Your task to perform on an android device: Go to location settings Image 0: 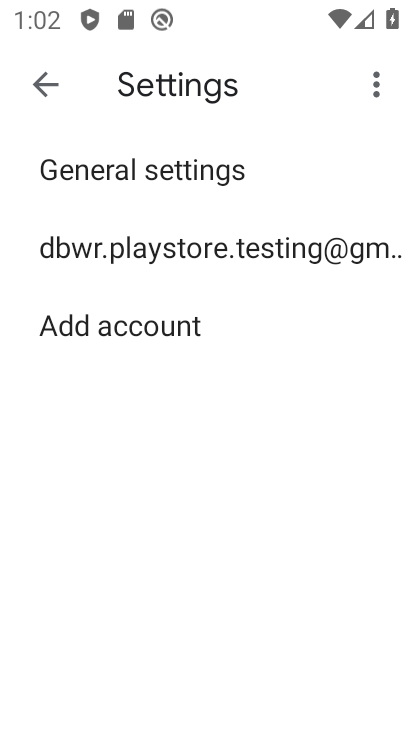
Step 0: press home button
Your task to perform on an android device: Go to location settings Image 1: 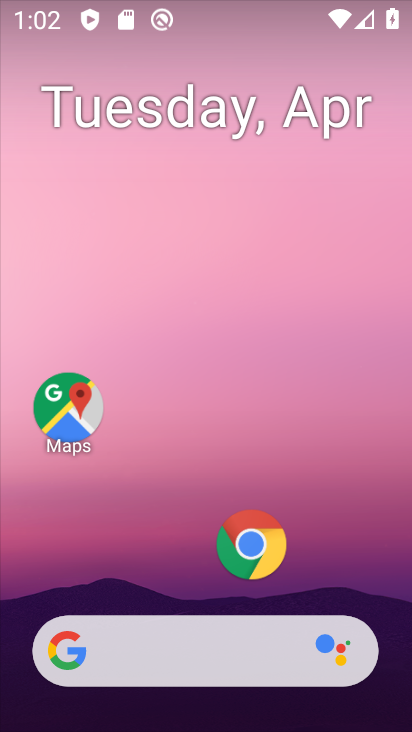
Step 1: drag from (340, 521) to (367, 156)
Your task to perform on an android device: Go to location settings Image 2: 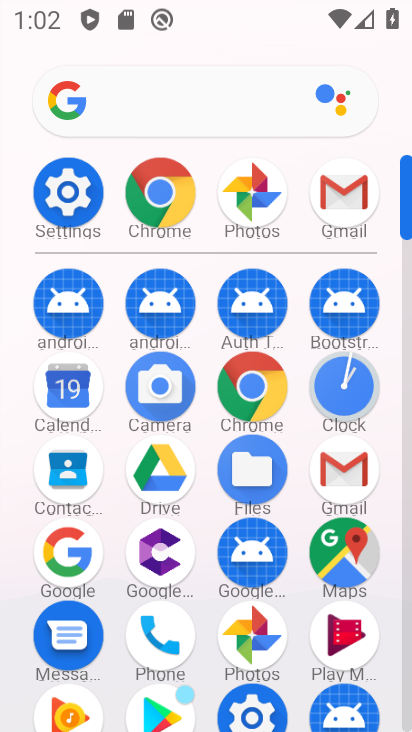
Step 2: click (56, 192)
Your task to perform on an android device: Go to location settings Image 3: 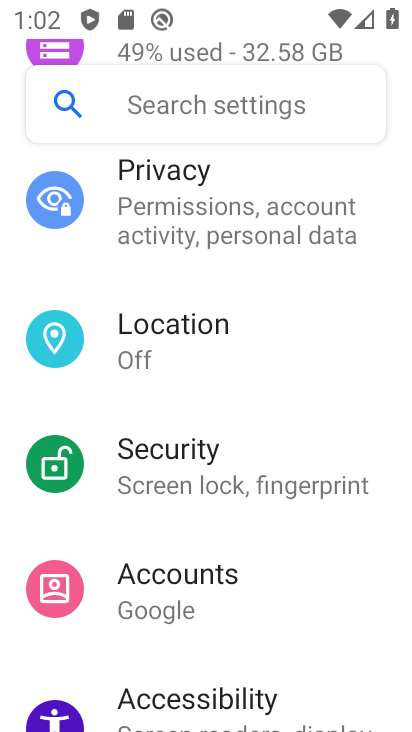
Step 3: click (232, 340)
Your task to perform on an android device: Go to location settings Image 4: 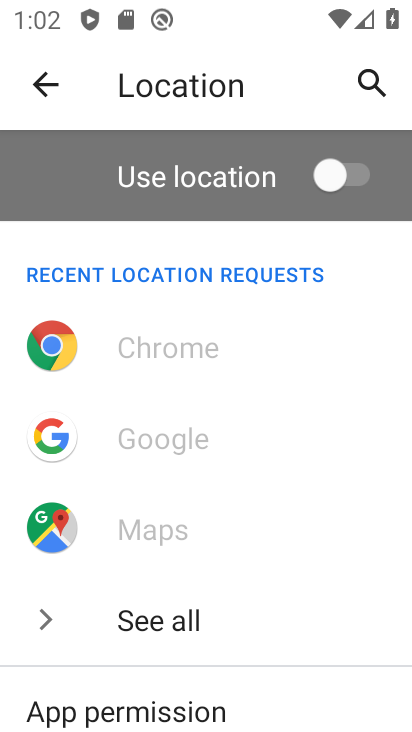
Step 4: task complete